Your task to perform on an android device: add a contact Image 0: 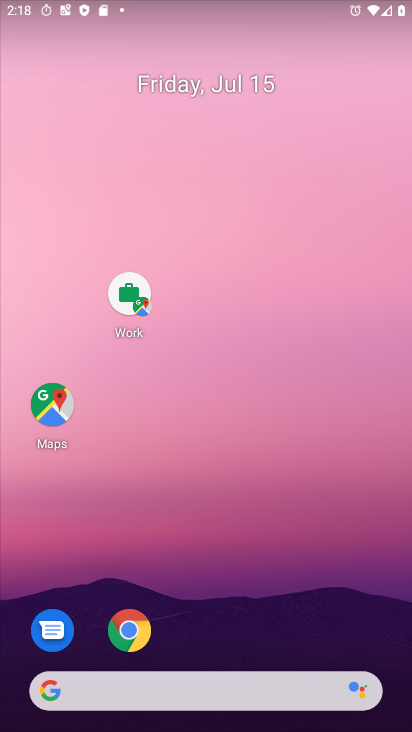
Step 0: drag from (202, 606) to (236, 190)
Your task to perform on an android device: add a contact Image 1: 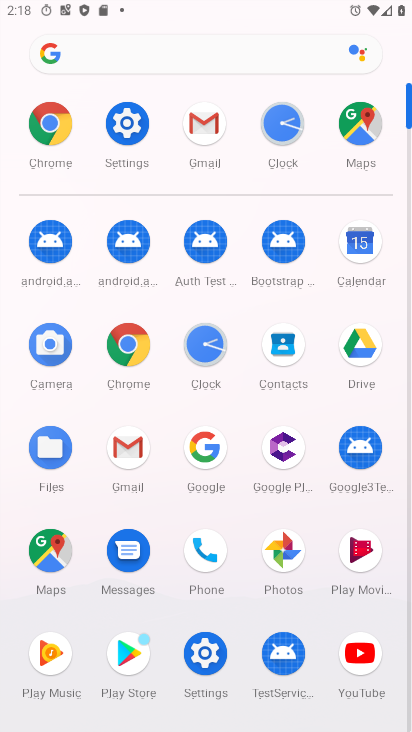
Step 1: click (267, 346)
Your task to perform on an android device: add a contact Image 2: 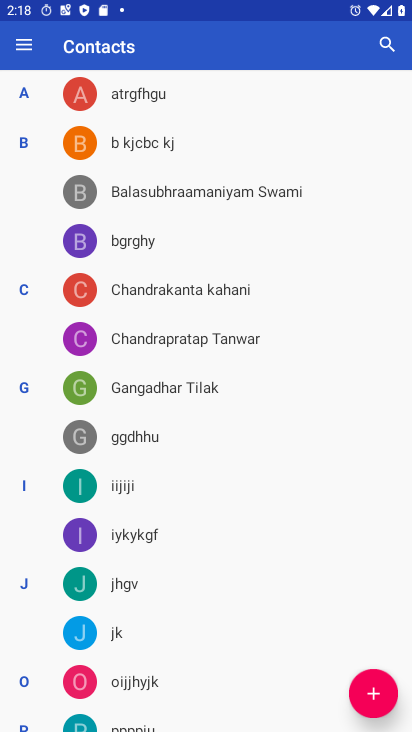
Step 2: click (375, 699)
Your task to perform on an android device: add a contact Image 3: 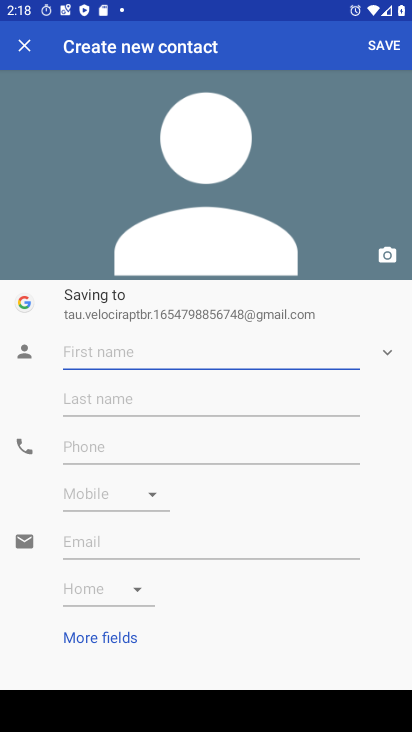
Step 3: type "hjgj"
Your task to perform on an android device: add a contact Image 4: 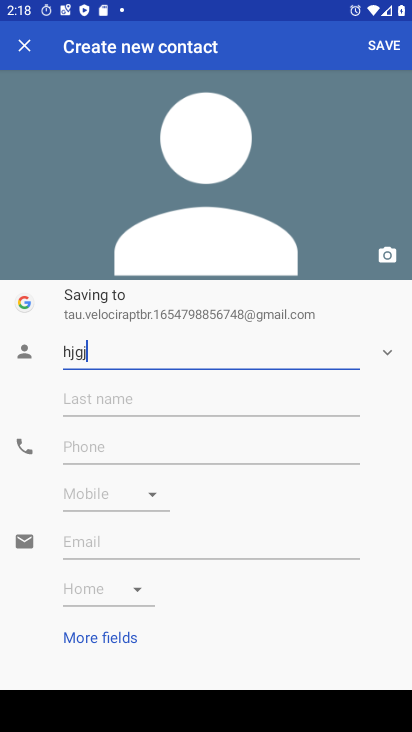
Step 4: click (134, 445)
Your task to perform on an android device: add a contact Image 5: 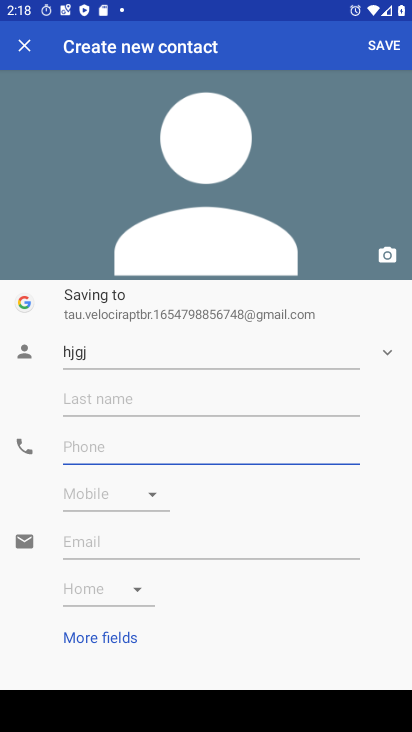
Step 5: type "768768876"
Your task to perform on an android device: add a contact Image 6: 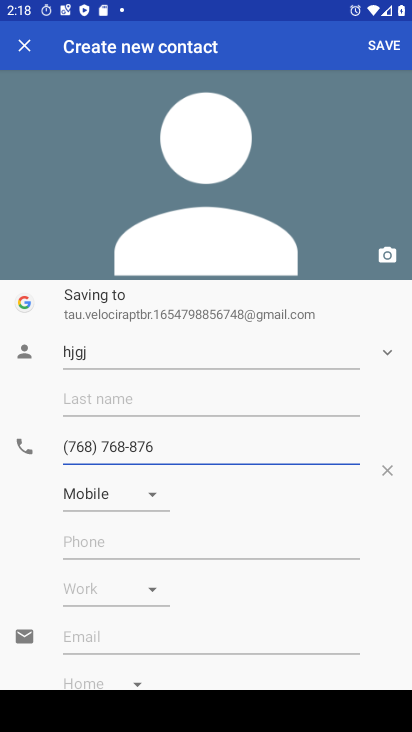
Step 6: click (366, 40)
Your task to perform on an android device: add a contact Image 7: 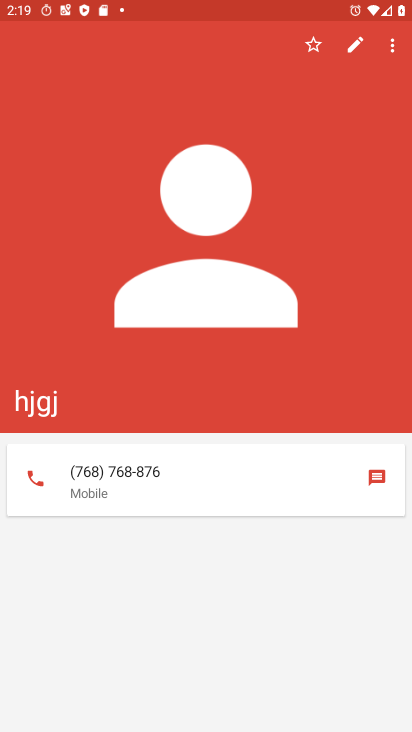
Step 7: task complete